Your task to perform on an android device: Open Google Maps and go to "Timeline" Image 0: 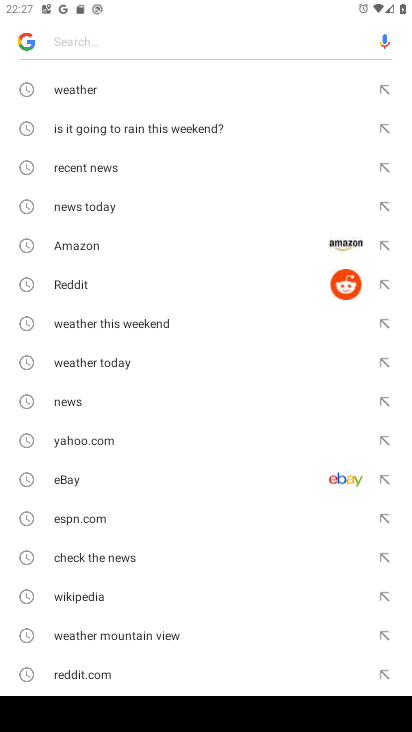
Step 0: press home button
Your task to perform on an android device: Open Google Maps and go to "Timeline" Image 1: 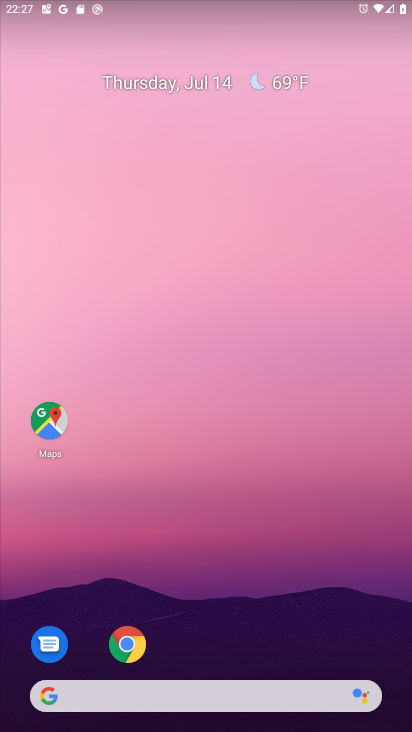
Step 1: click (48, 414)
Your task to perform on an android device: Open Google Maps and go to "Timeline" Image 2: 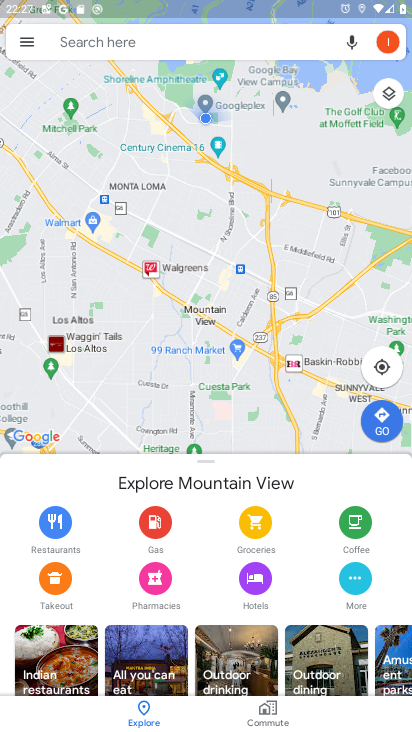
Step 2: click (28, 79)
Your task to perform on an android device: Open Google Maps and go to "Timeline" Image 3: 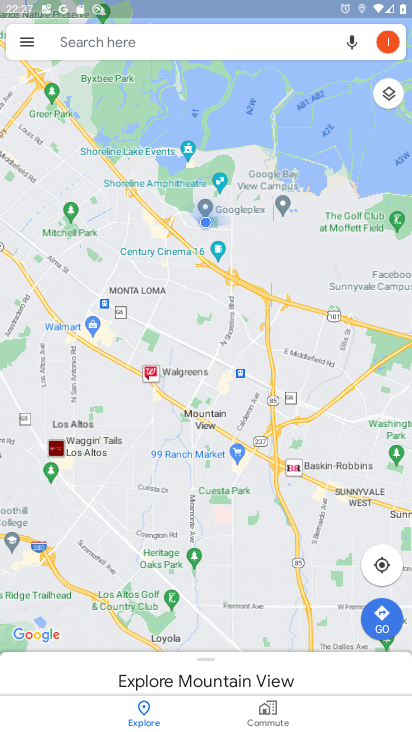
Step 3: click (27, 48)
Your task to perform on an android device: Open Google Maps and go to "Timeline" Image 4: 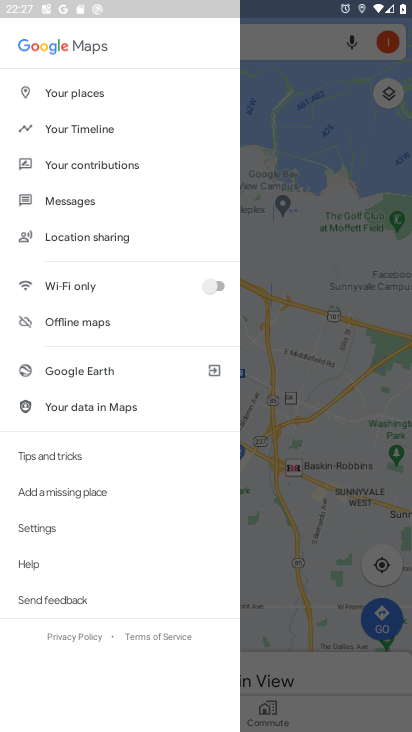
Step 4: click (85, 129)
Your task to perform on an android device: Open Google Maps and go to "Timeline" Image 5: 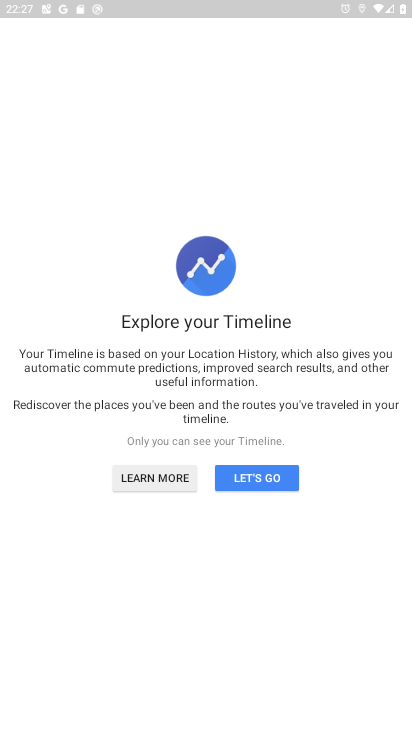
Step 5: click (250, 479)
Your task to perform on an android device: Open Google Maps and go to "Timeline" Image 6: 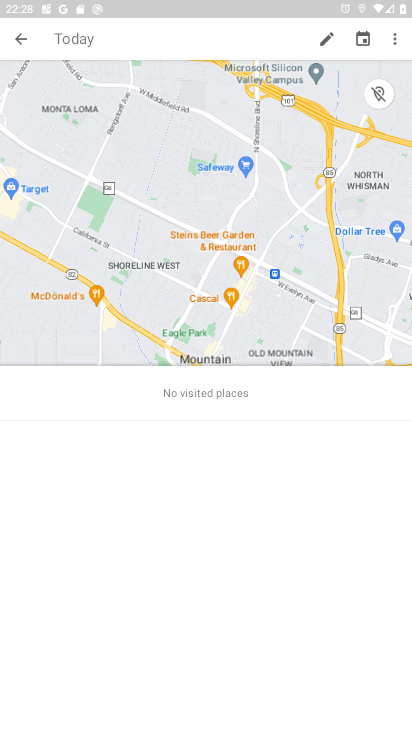
Step 6: task complete